Your task to perform on an android device: Open display settings Image 0: 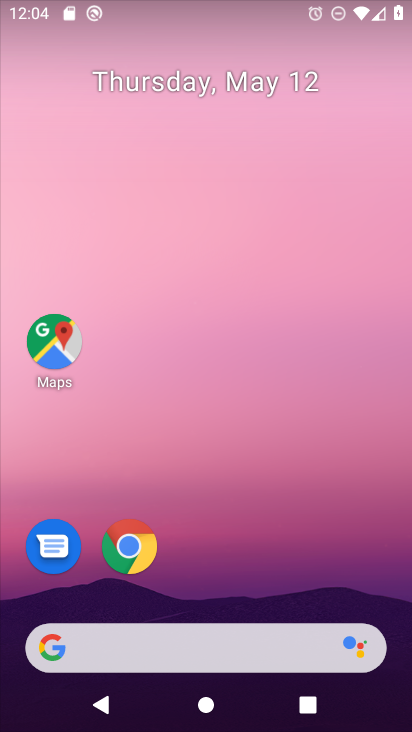
Step 0: drag from (394, 641) to (329, 82)
Your task to perform on an android device: Open display settings Image 1: 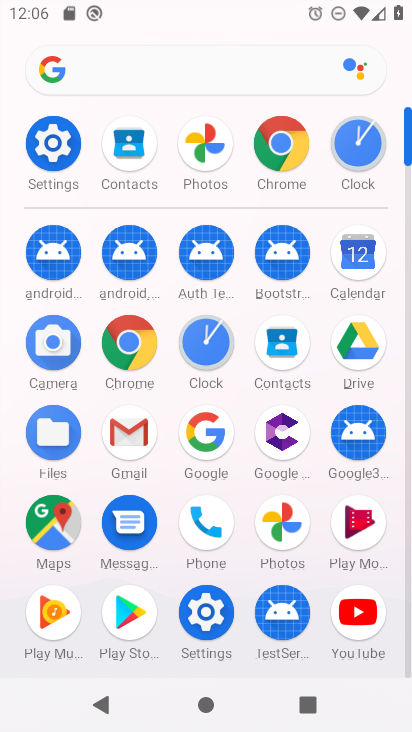
Step 1: click (219, 615)
Your task to perform on an android device: Open display settings Image 2: 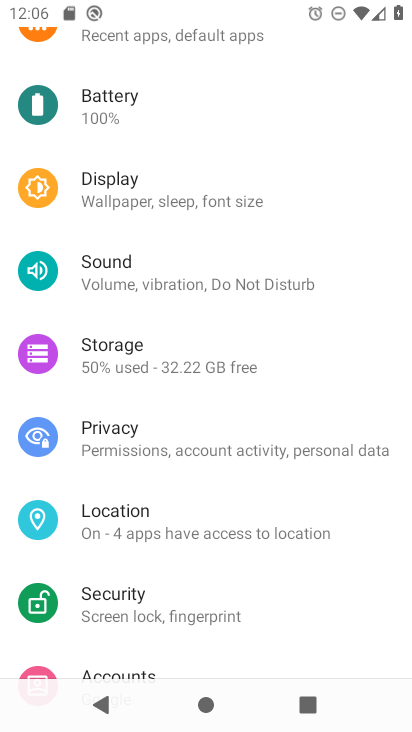
Step 2: click (160, 205)
Your task to perform on an android device: Open display settings Image 3: 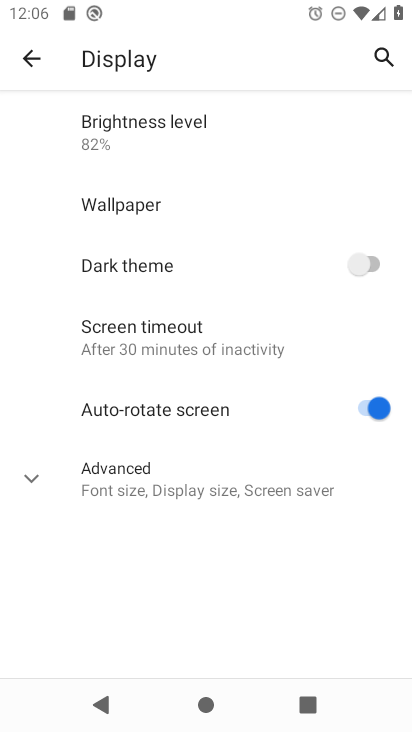
Step 3: task complete